Your task to perform on an android device: Play the last video I watched on Youtube Image 0: 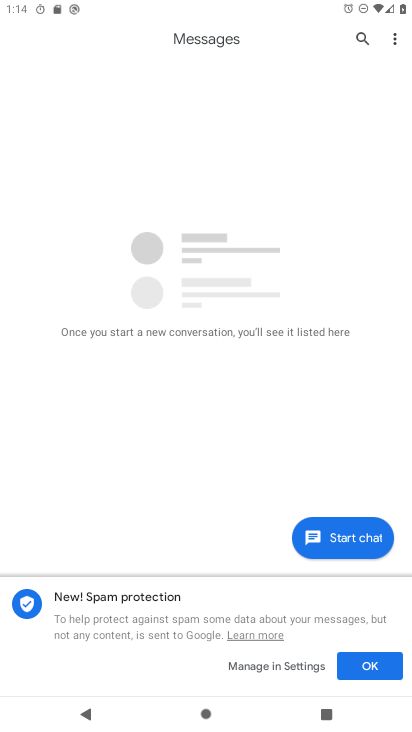
Step 0: press home button
Your task to perform on an android device: Play the last video I watched on Youtube Image 1: 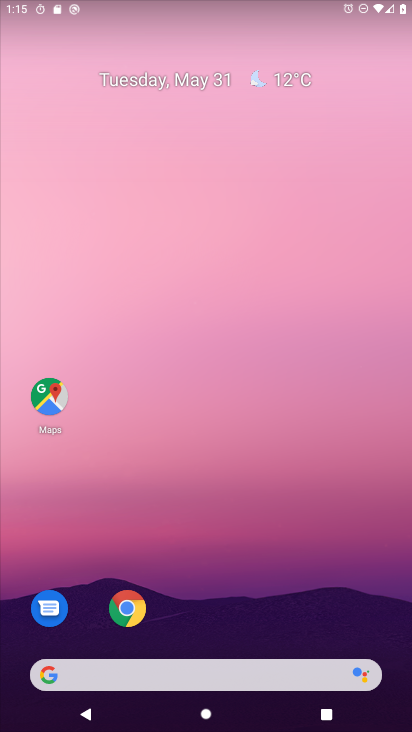
Step 1: drag from (276, 646) to (293, 18)
Your task to perform on an android device: Play the last video I watched on Youtube Image 2: 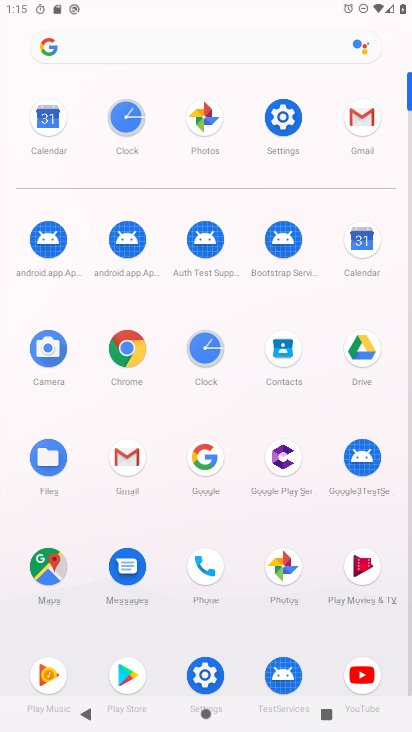
Step 2: click (363, 678)
Your task to perform on an android device: Play the last video I watched on Youtube Image 3: 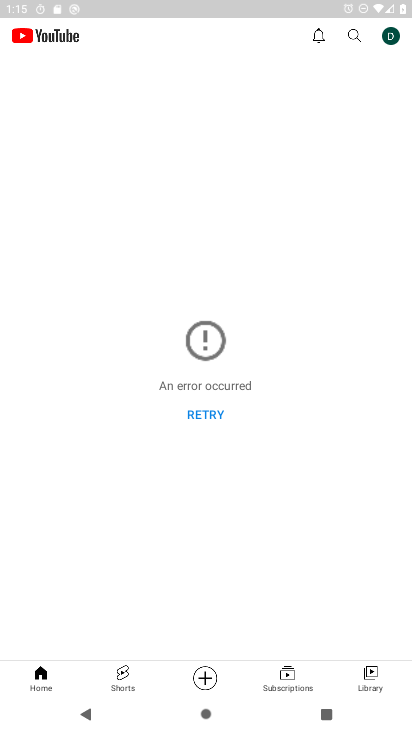
Step 3: click (371, 684)
Your task to perform on an android device: Play the last video I watched on Youtube Image 4: 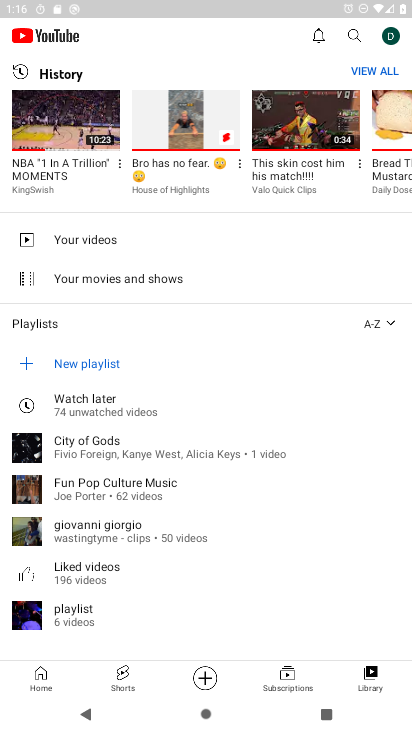
Step 4: click (52, 125)
Your task to perform on an android device: Play the last video I watched on Youtube Image 5: 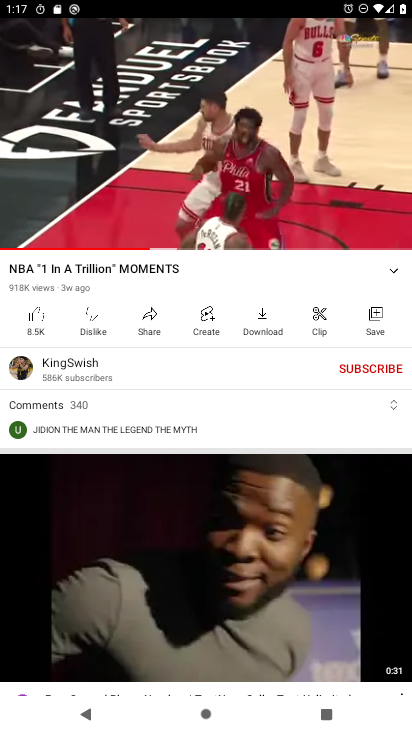
Step 5: click (214, 125)
Your task to perform on an android device: Play the last video I watched on Youtube Image 6: 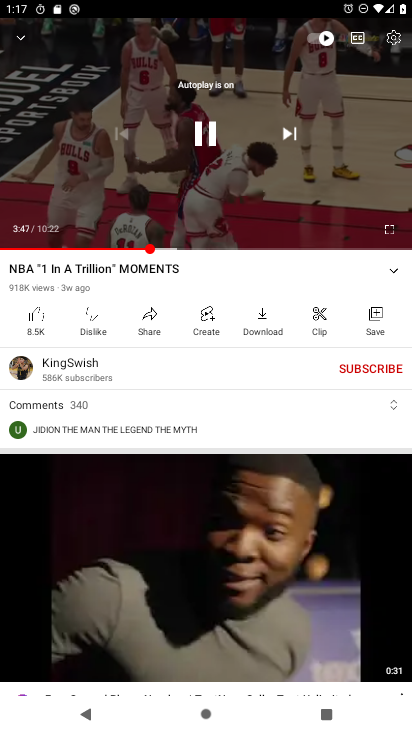
Step 6: click (214, 141)
Your task to perform on an android device: Play the last video I watched on Youtube Image 7: 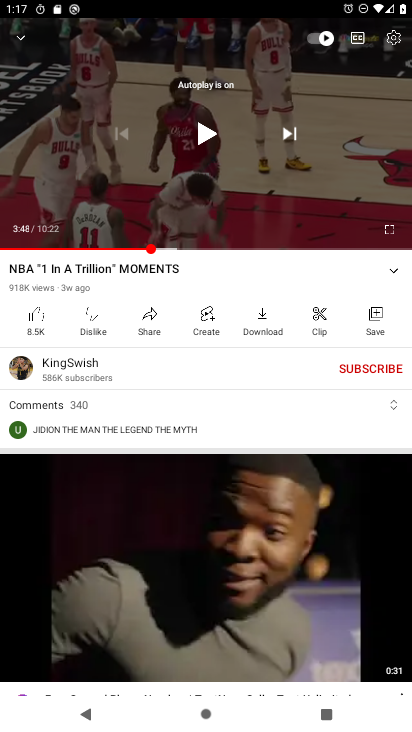
Step 7: click (213, 138)
Your task to perform on an android device: Play the last video I watched on Youtube Image 8: 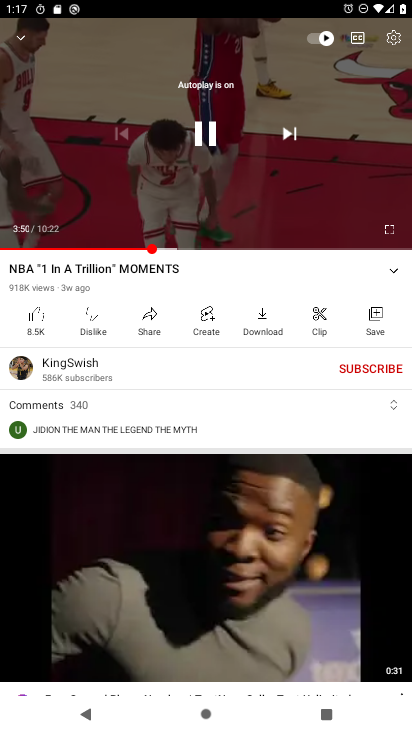
Step 8: task complete